Your task to perform on an android device: Search for pizza restaurants on Maps Image 0: 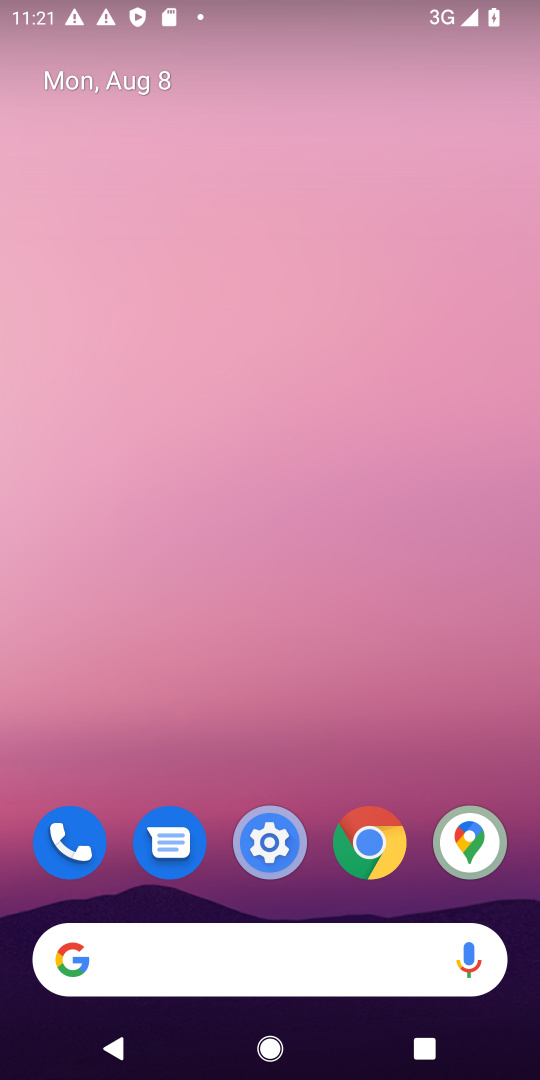
Step 0: click (447, 851)
Your task to perform on an android device: Search for pizza restaurants on Maps Image 1: 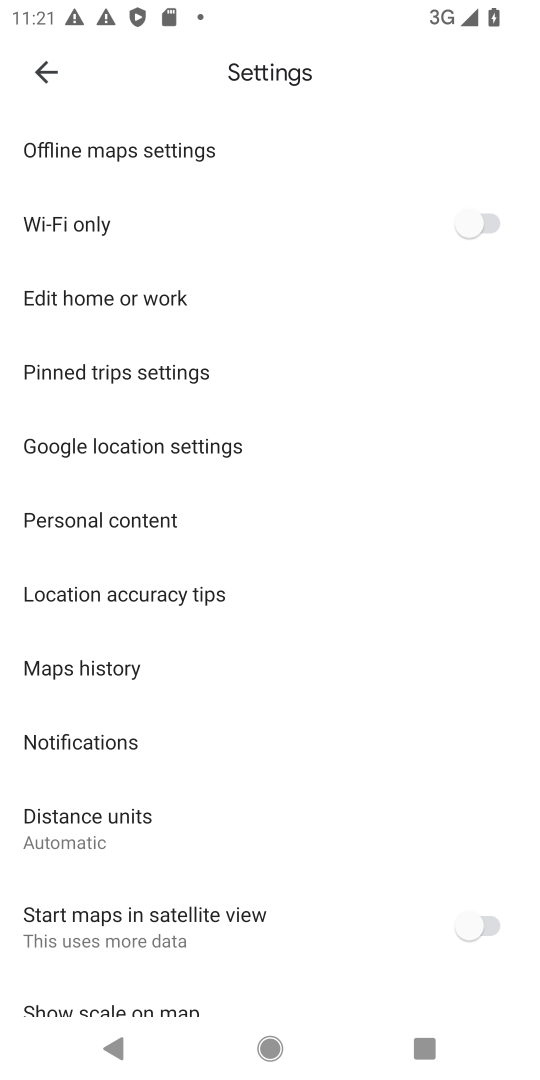
Step 1: click (73, 74)
Your task to perform on an android device: Search for pizza restaurants on Maps Image 2: 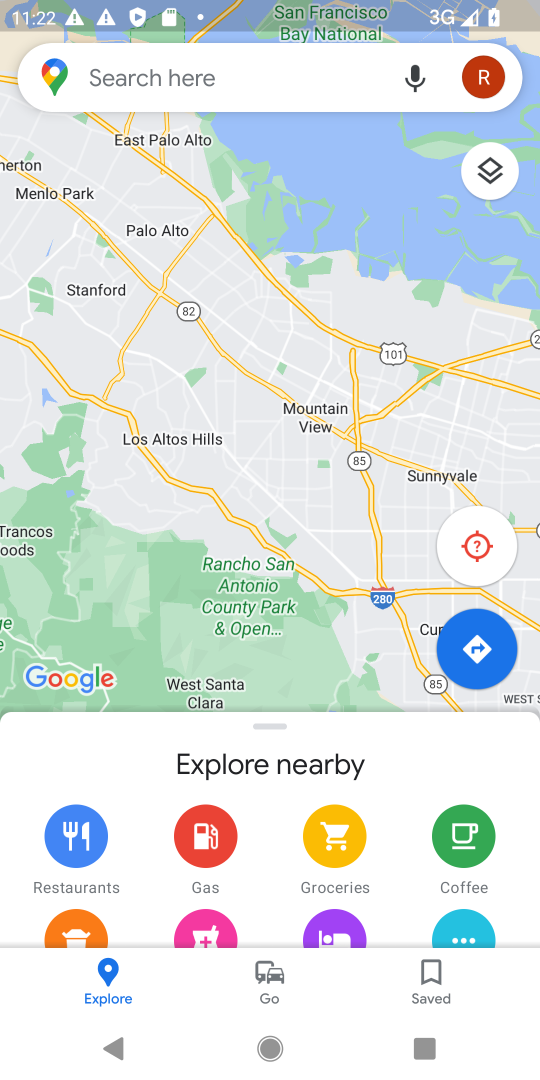
Step 2: click (253, 83)
Your task to perform on an android device: Search for pizza restaurants on Maps Image 3: 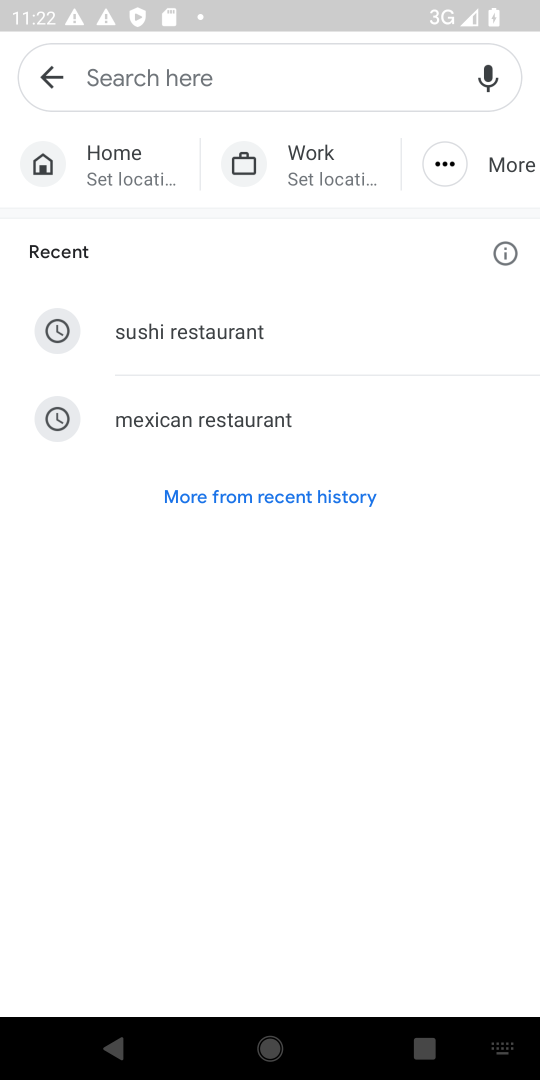
Step 3: type "pizza restaurant"
Your task to perform on an android device: Search for pizza restaurants on Maps Image 4: 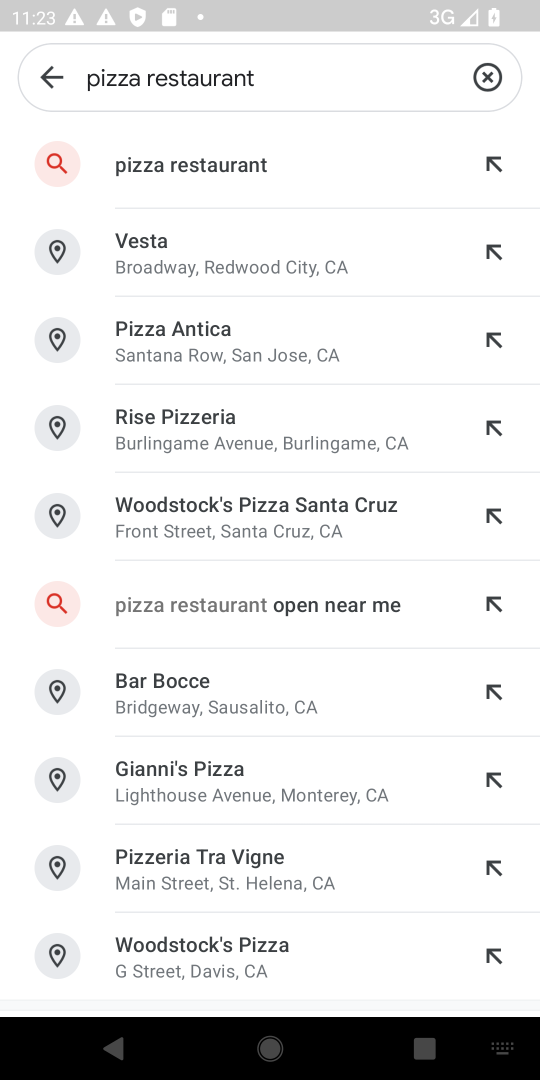
Step 4: click (189, 156)
Your task to perform on an android device: Search for pizza restaurants on Maps Image 5: 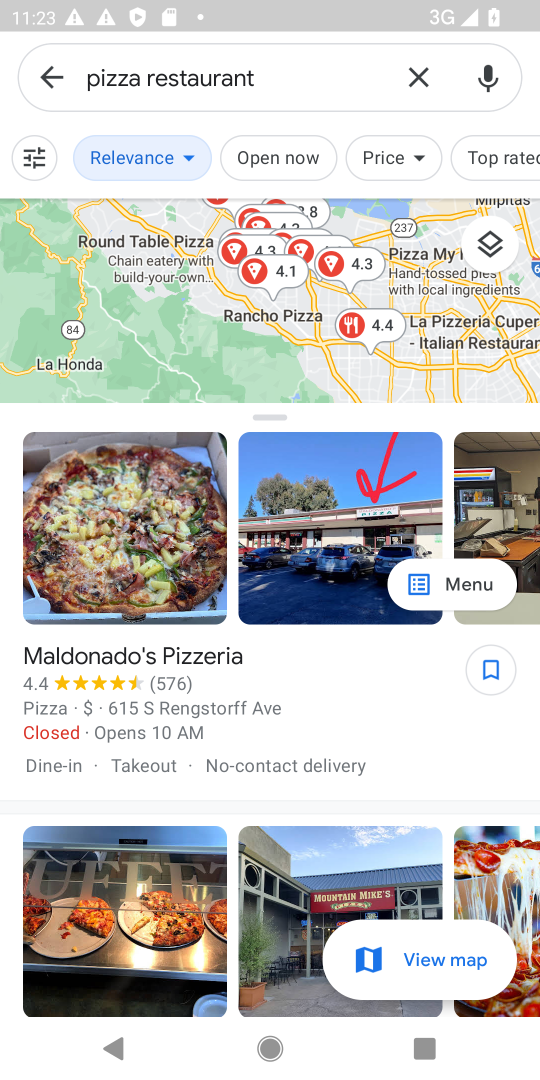
Step 5: task complete